Your task to perform on an android device: What is the speed of a train? Image 0: 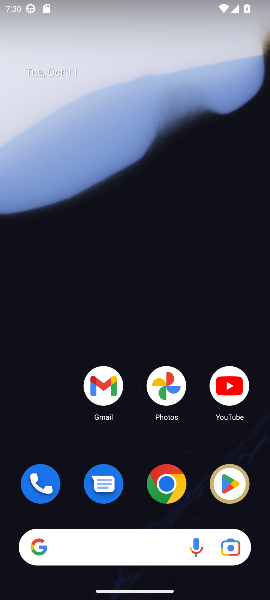
Step 0: click (168, 485)
Your task to perform on an android device: What is the speed of a train? Image 1: 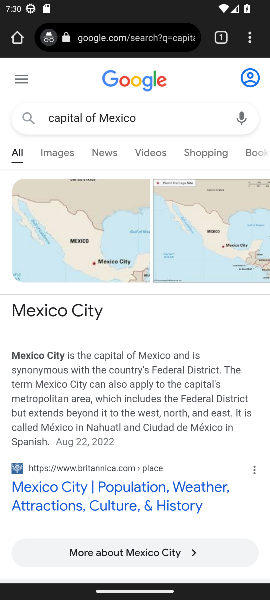
Step 1: click (132, 39)
Your task to perform on an android device: What is the speed of a train? Image 2: 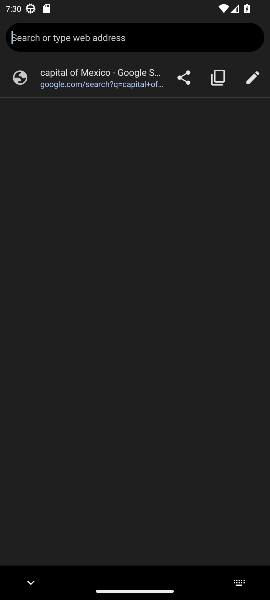
Step 2: type "What is the speed of a train?"
Your task to perform on an android device: What is the speed of a train? Image 3: 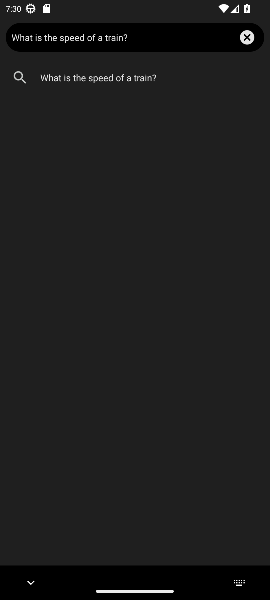
Step 3: click (133, 78)
Your task to perform on an android device: What is the speed of a train? Image 4: 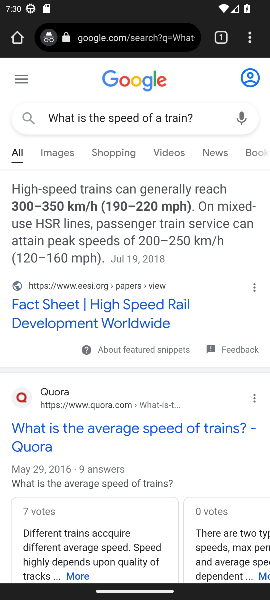
Step 4: task complete